Your task to perform on an android device: Open eBay Image 0: 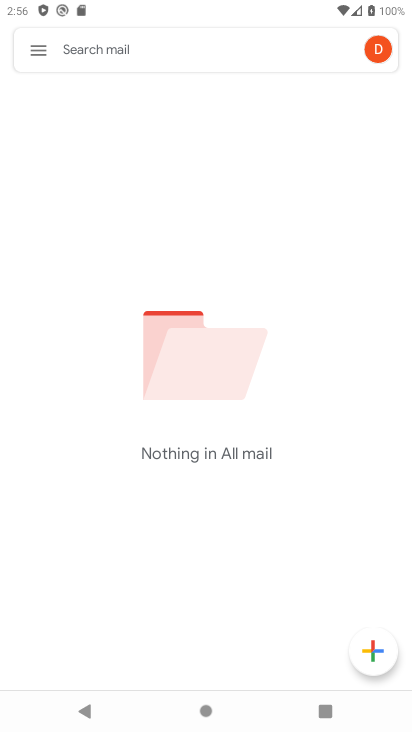
Step 0: press back button
Your task to perform on an android device: Open eBay Image 1: 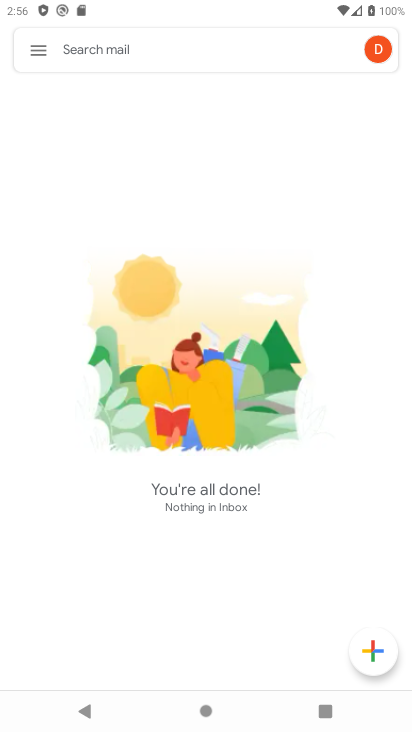
Step 1: press home button
Your task to perform on an android device: Open eBay Image 2: 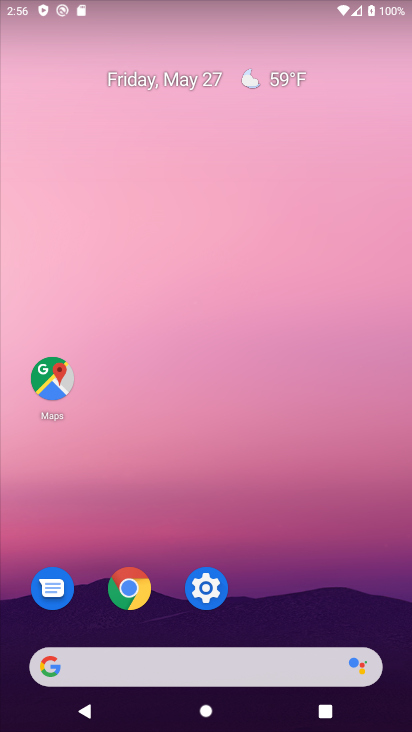
Step 2: drag from (265, 681) to (106, 105)
Your task to perform on an android device: Open eBay Image 3: 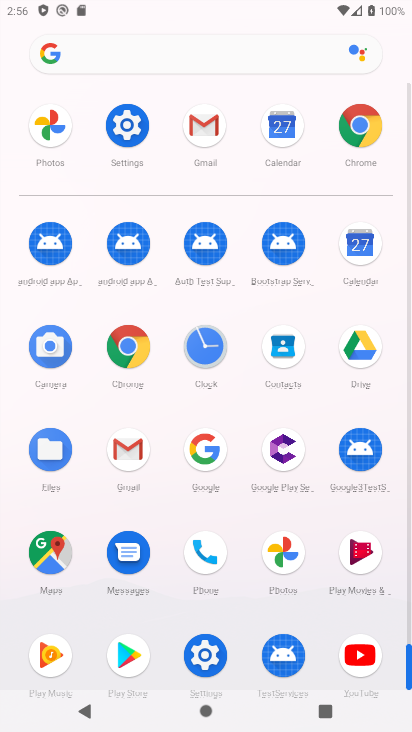
Step 3: click (200, 169)
Your task to perform on an android device: Open eBay Image 4: 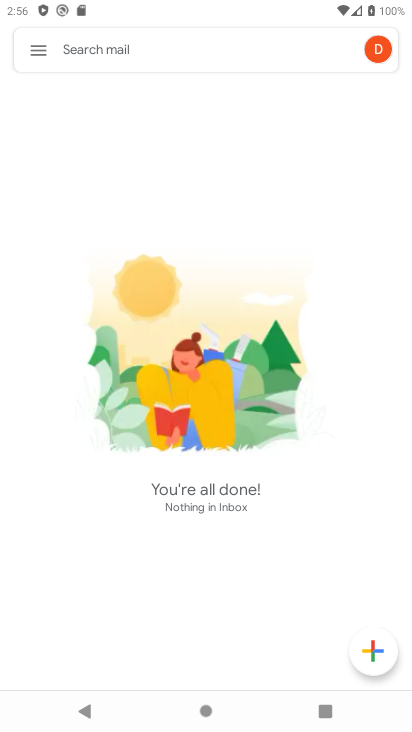
Step 4: press back button
Your task to perform on an android device: Open eBay Image 5: 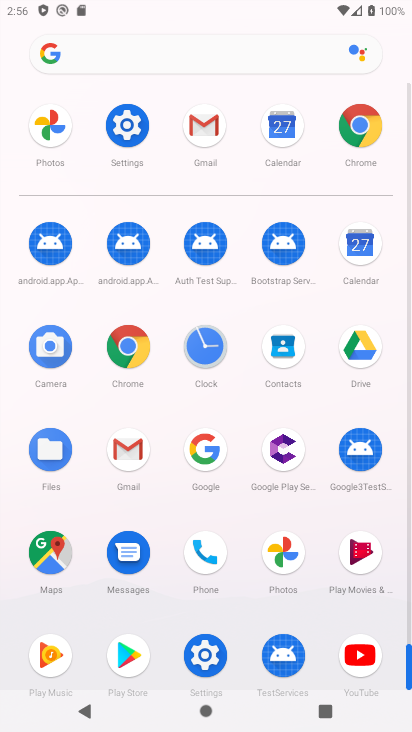
Step 5: click (369, 123)
Your task to perform on an android device: Open eBay Image 6: 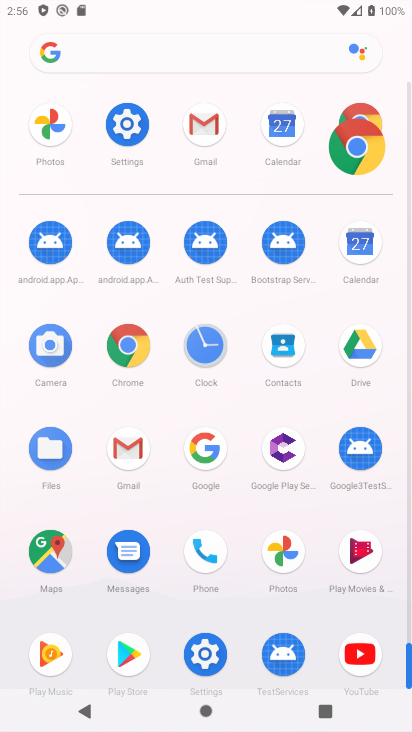
Step 6: click (367, 128)
Your task to perform on an android device: Open eBay Image 7: 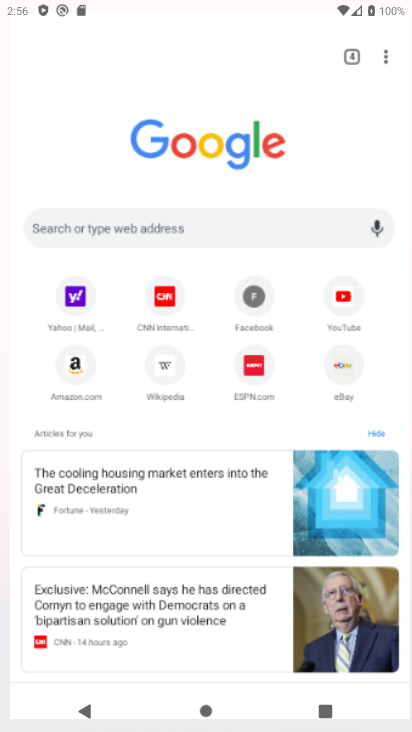
Step 7: click (367, 136)
Your task to perform on an android device: Open eBay Image 8: 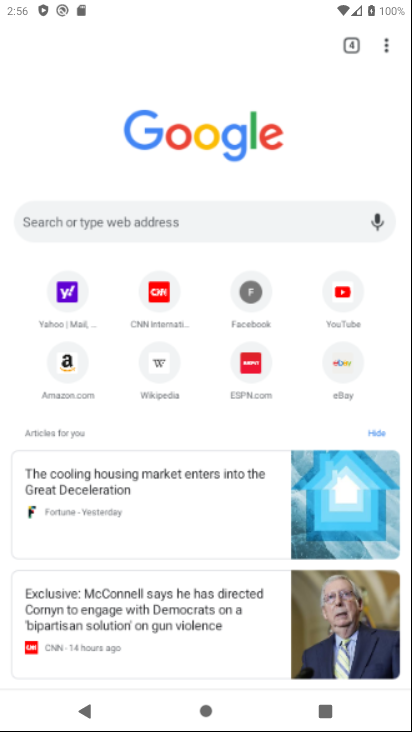
Step 8: click (367, 139)
Your task to perform on an android device: Open eBay Image 9: 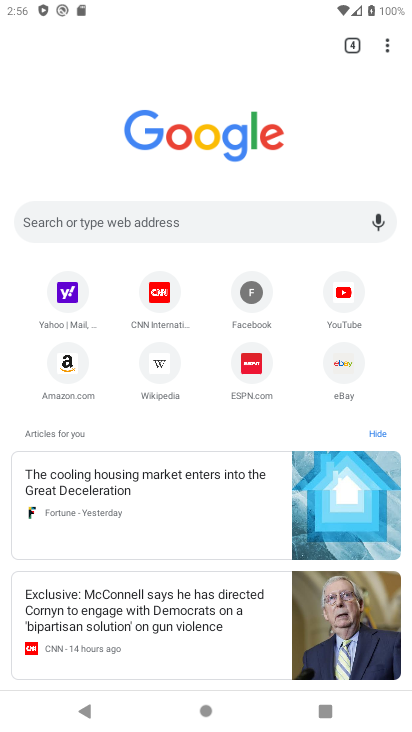
Step 9: click (343, 365)
Your task to perform on an android device: Open eBay Image 10: 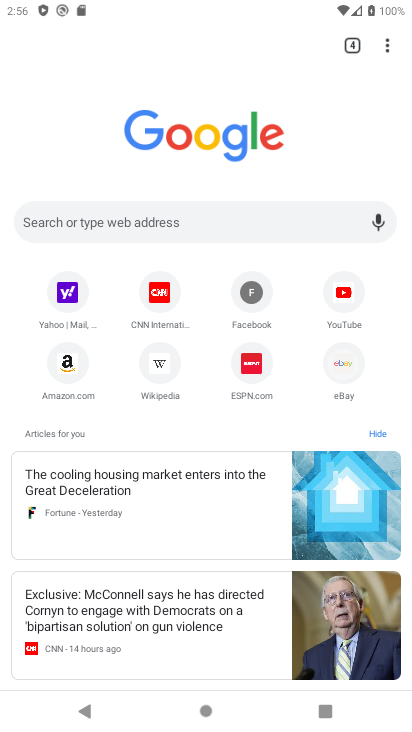
Step 10: click (343, 365)
Your task to perform on an android device: Open eBay Image 11: 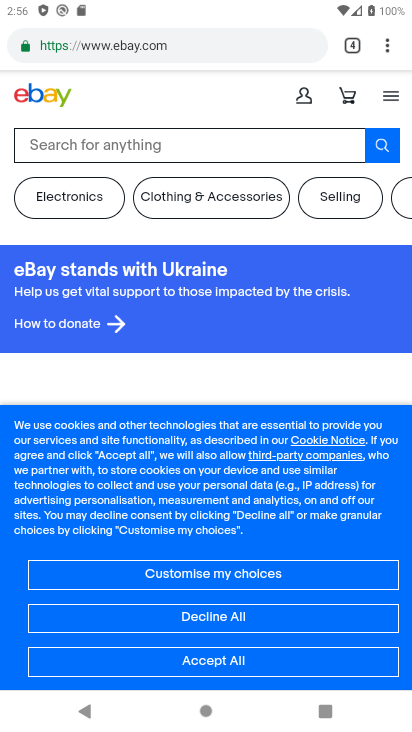
Step 11: task complete